Your task to perform on an android device: Go to network settings Image 0: 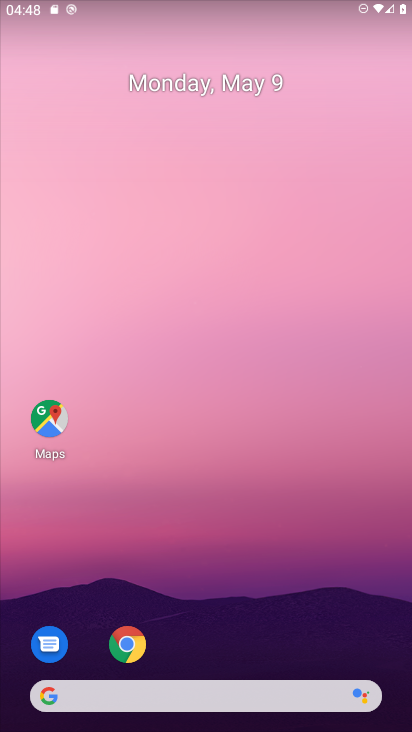
Step 0: drag from (297, 559) to (292, 233)
Your task to perform on an android device: Go to network settings Image 1: 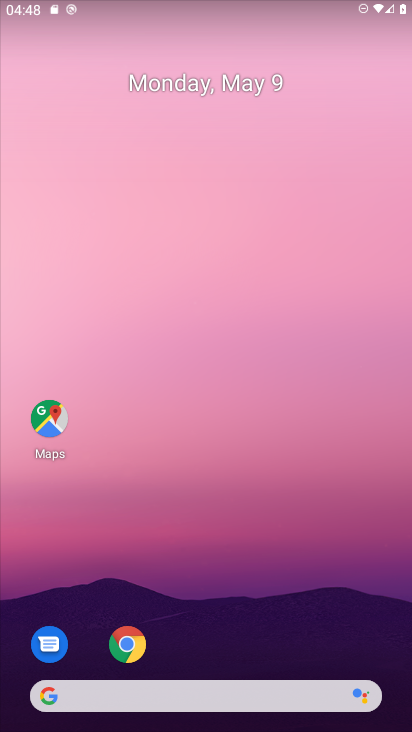
Step 1: drag from (295, 607) to (353, 183)
Your task to perform on an android device: Go to network settings Image 2: 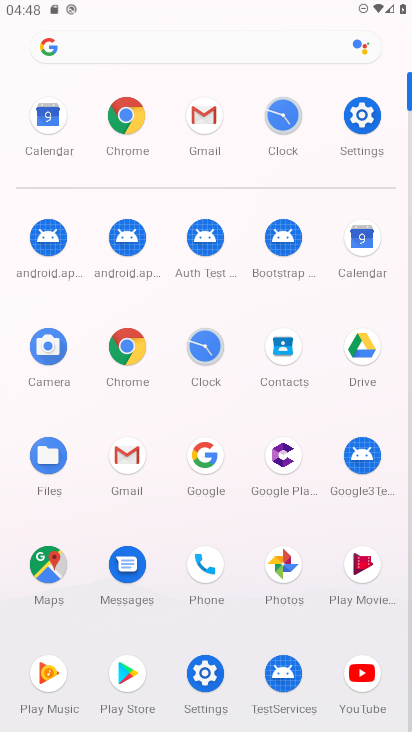
Step 2: click (372, 132)
Your task to perform on an android device: Go to network settings Image 3: 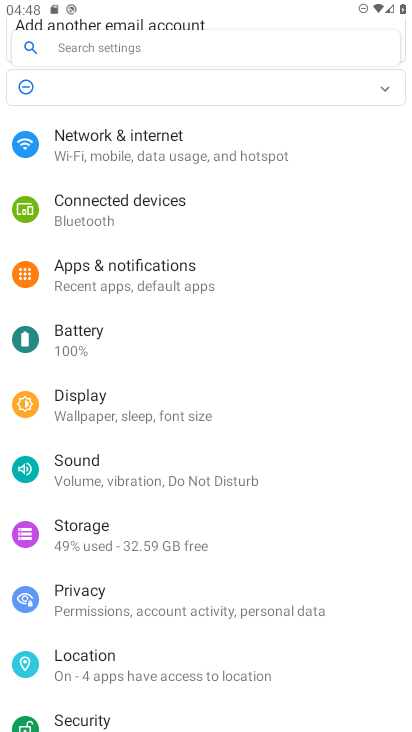
Step 3: click (141, 134)
Your task to perform on an android device: Go to network settings Image 4: 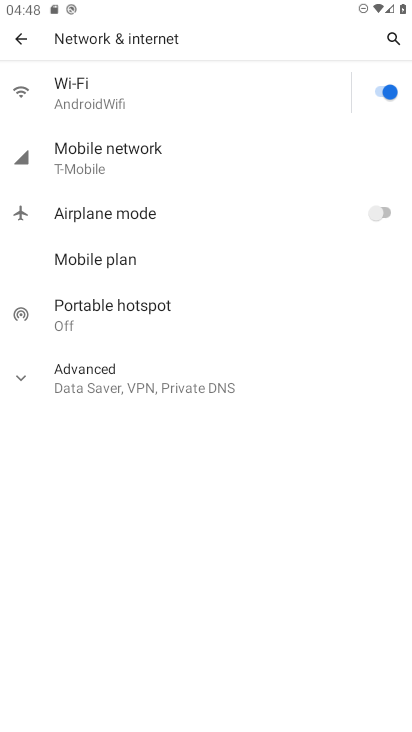
Step 4: click (145, 149)
Your task to perform on an android device: Go to network settings Image 5: 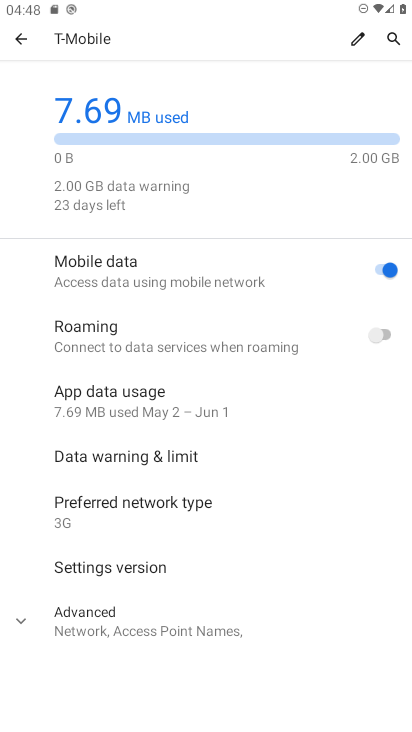
Step 5: click (115, 628)
Your task to perform on an android device: Go to network settings Image 6: 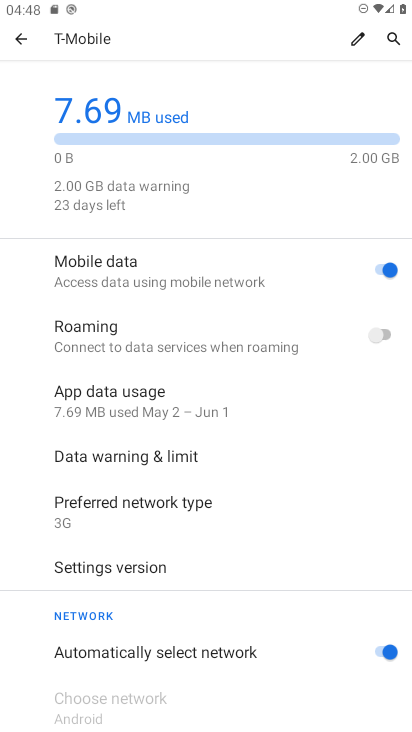
Step 6: task complete